Your task to perform on an android device: Open wifi settings Image 0: 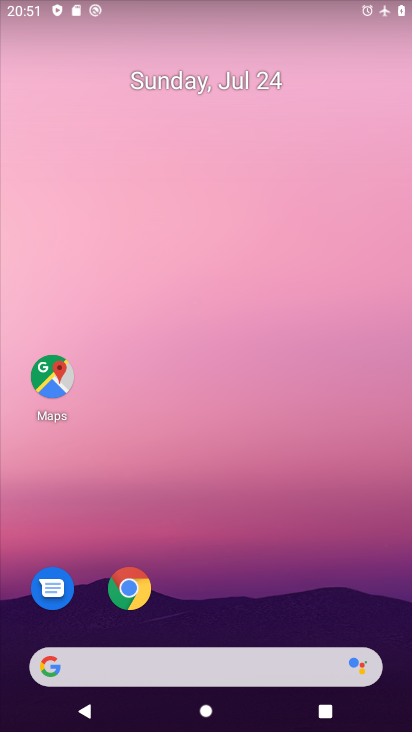
Step 0: drag from (161, 607) to (150, 217)
Your task to perform on an android device: Open wifi settings Image 1: 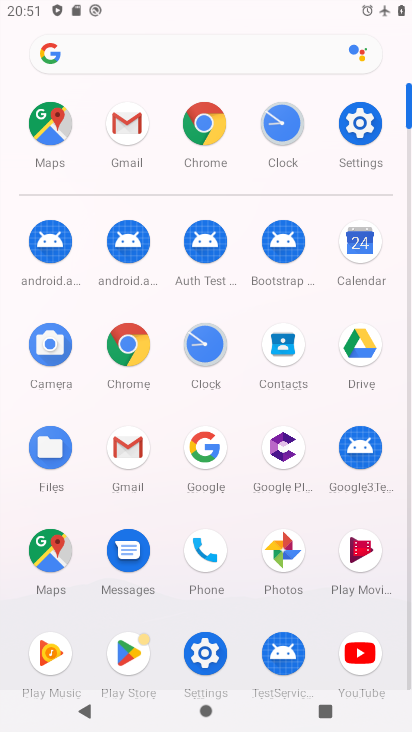
Step 1: click (366, 110)
Your task to perform on an android device: Open wifi settings Image 2: 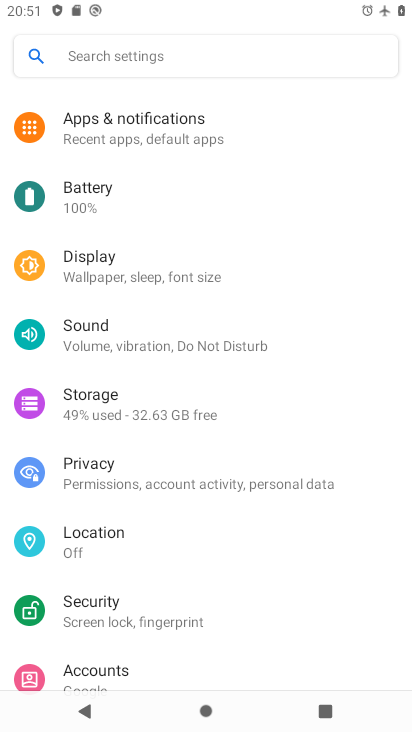
Step 2: drag from (127, 152) to (91, 728)
Your task to perform on an android device: Open wifi settings Image 3: 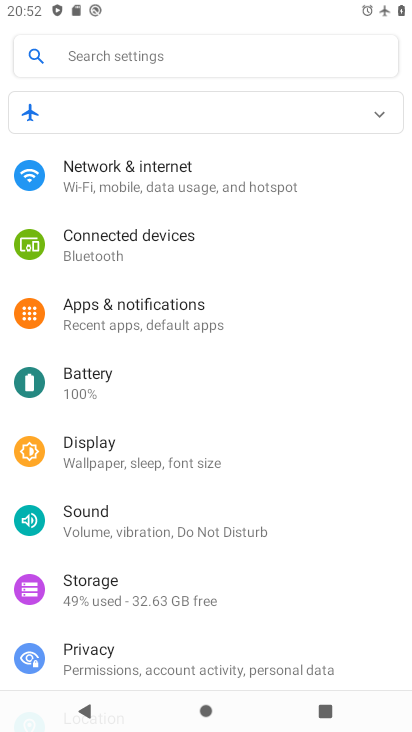
Step 3: click (104, 169)
Your task to perform on an android device: Open wifi settings Image 4: 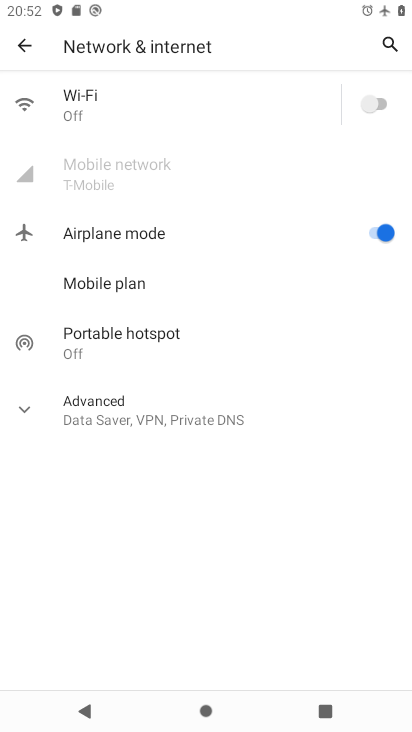
Step 4: click (92, 105)
Your task to perform on an android device: Open wifi settings Image 5: 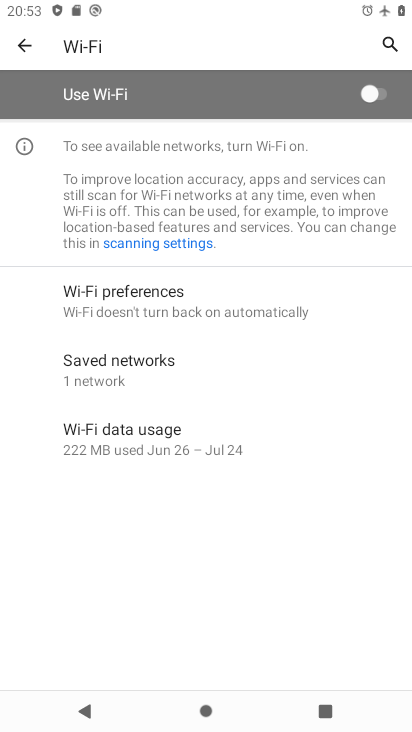
Step 5: task complete